Your task to perform on an android device: turn off data saver in the chrome app Image 0: 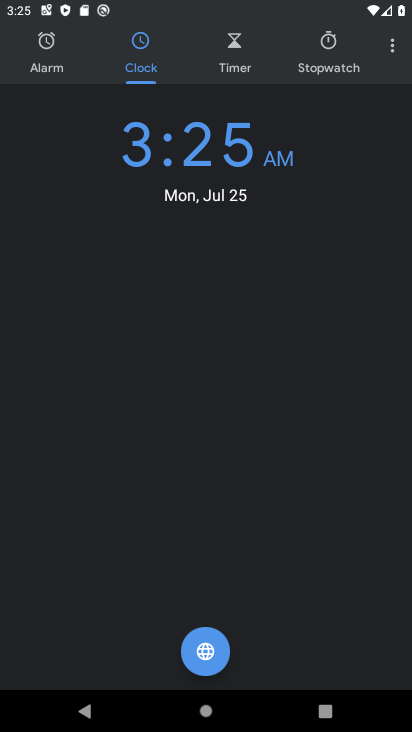
Step 0: press home button
Your task to perform on an android device: turn off data saver in the chrome app Image 1: 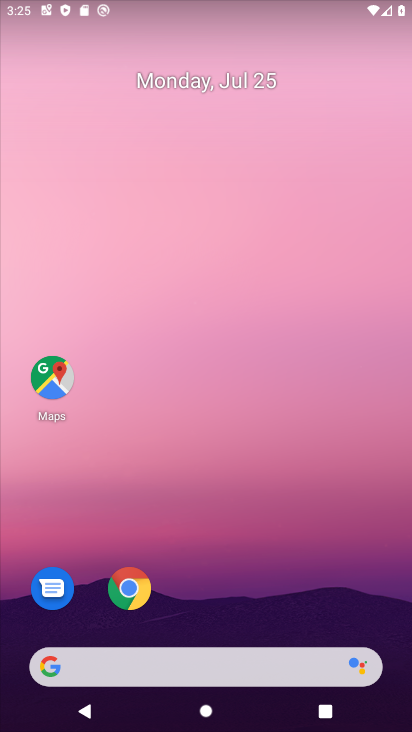
Step 1: click (137, 585)
Your task to perform on an android device: turn off data saver in the chrome app Image 2: 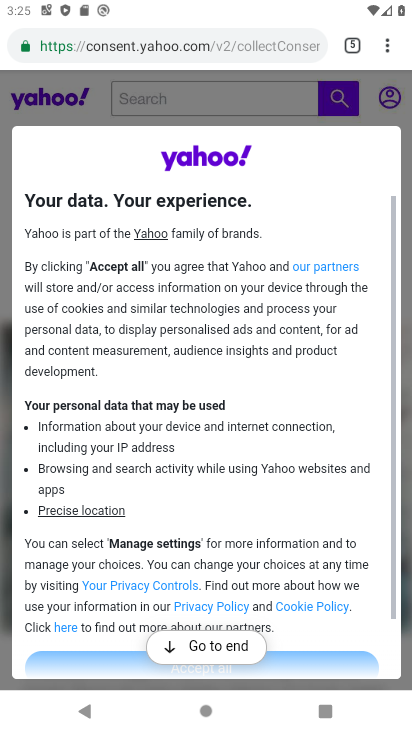
Step 2: click (381, 43)
Your task to perform on an android device: turn off data saver in the chrome app Image 3: 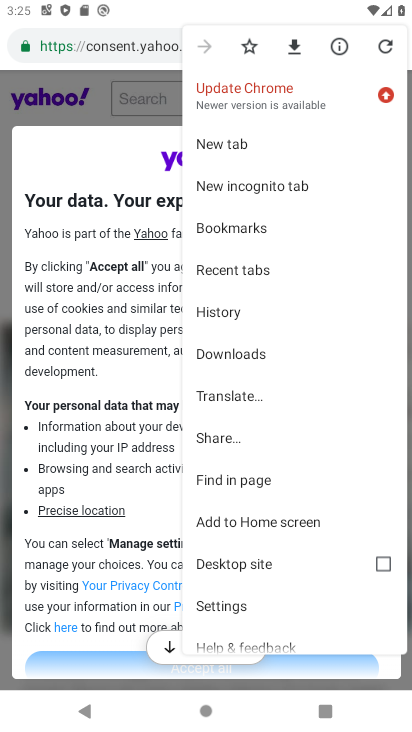
Step 3: click (231, 609)
Your task to perform on an android device: turn off data saver in the chrome app Image 4: 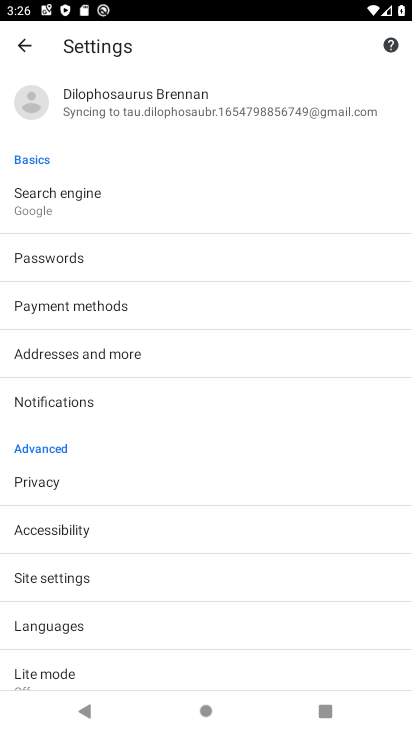
Step 4: click (104, 581)
Your task to perform on an android device: turn off data saver in the chrome app Image 5: 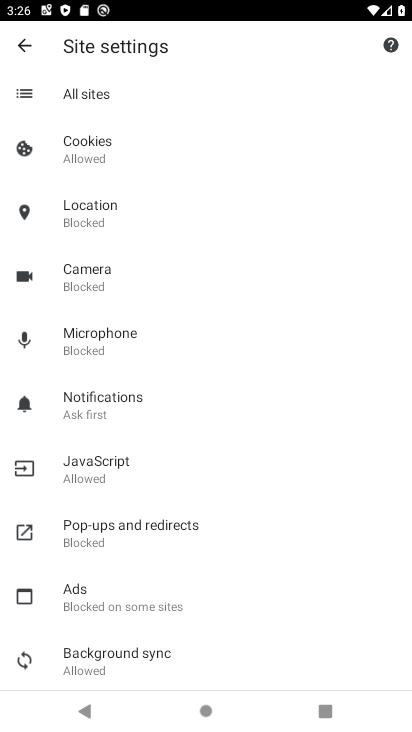
Step 5: click (18, 46)
Your task to perform on an android device: turn off data saver in the chrome app Image 6: 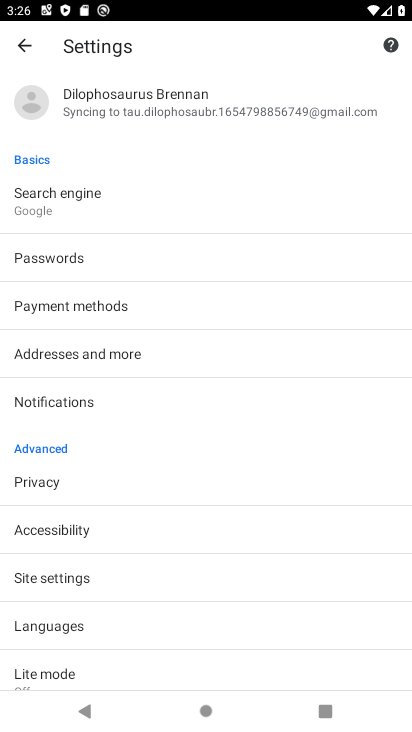
Step 6: click (84, 665)
Your task to perform on an android device: turn off data saver in the chrome app Image 7: 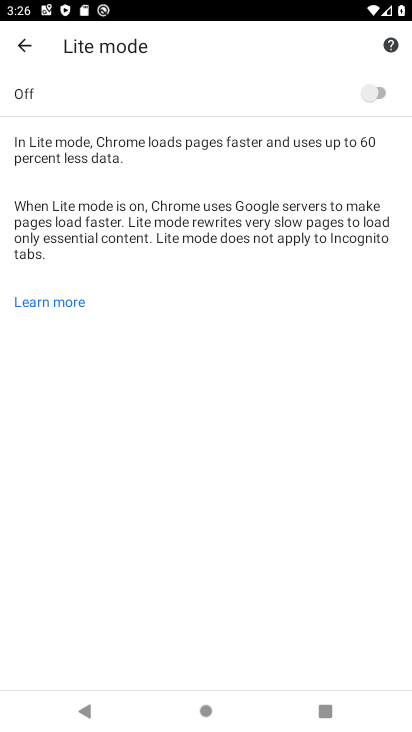
Step 7: task complete